Your task to perform on an android device: uninstall "Grab" Image 0: 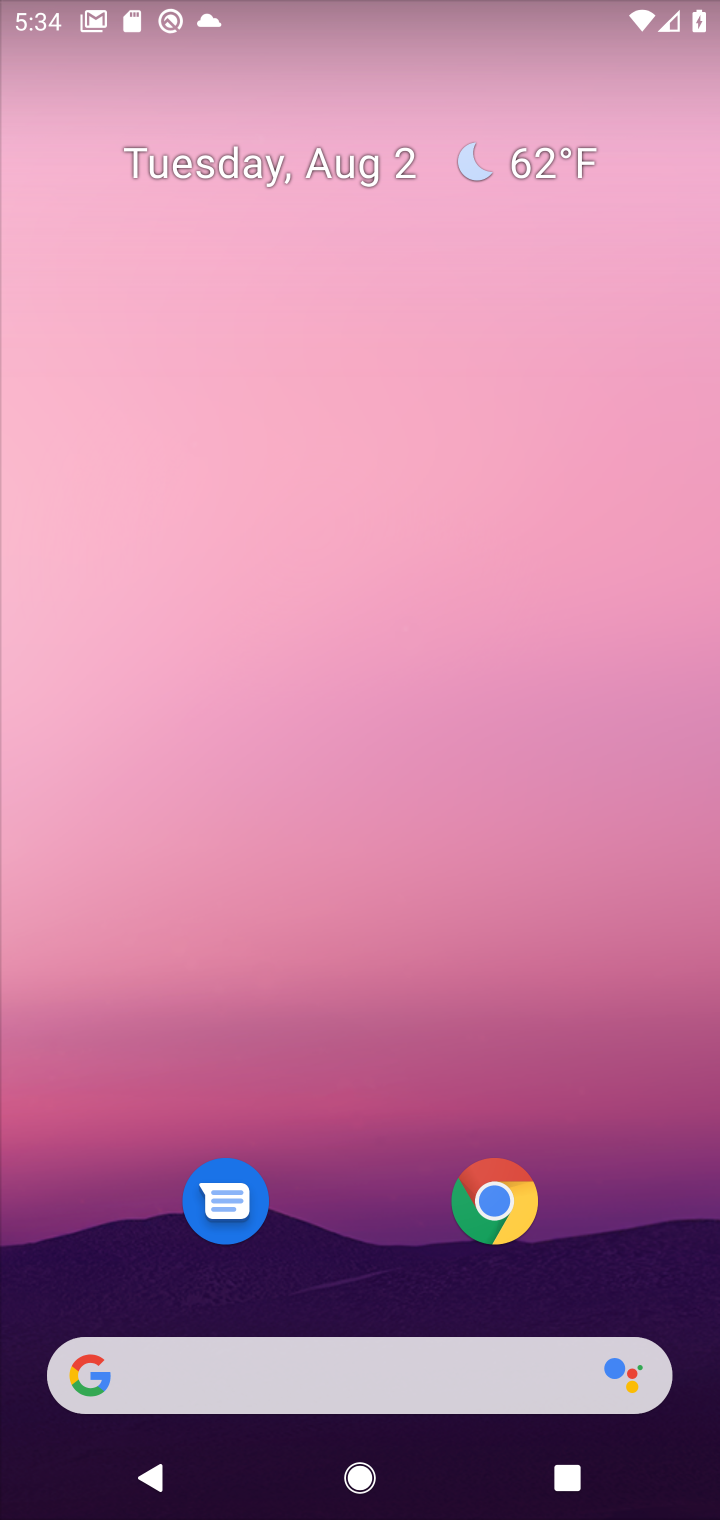
Step 0: click (413, 357)
Your task to perform on an android device: uninstall "Grab" Image 1: 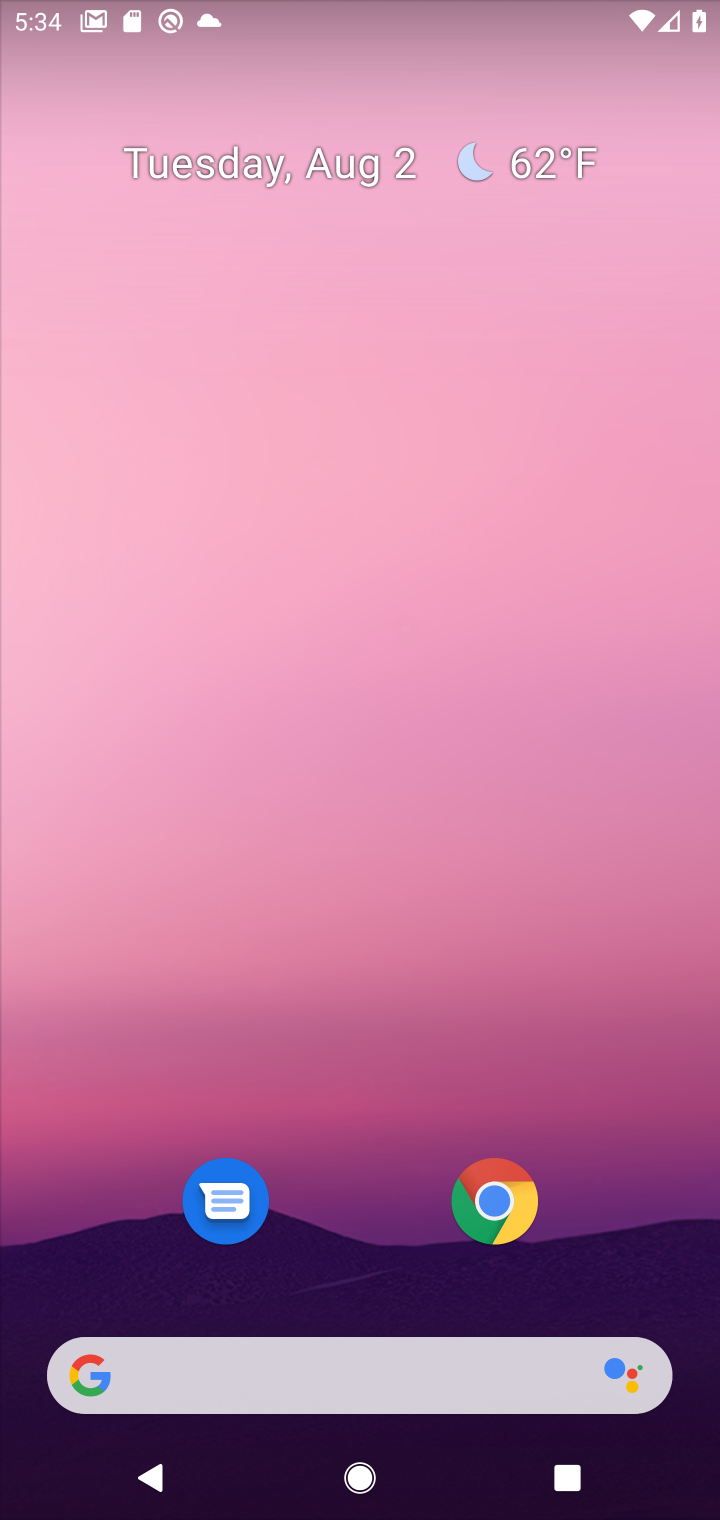
Step 1: drag from (308, 1260) to (357, 325)
Your task to perform on an android device: uninstall "Grab" Image 2: 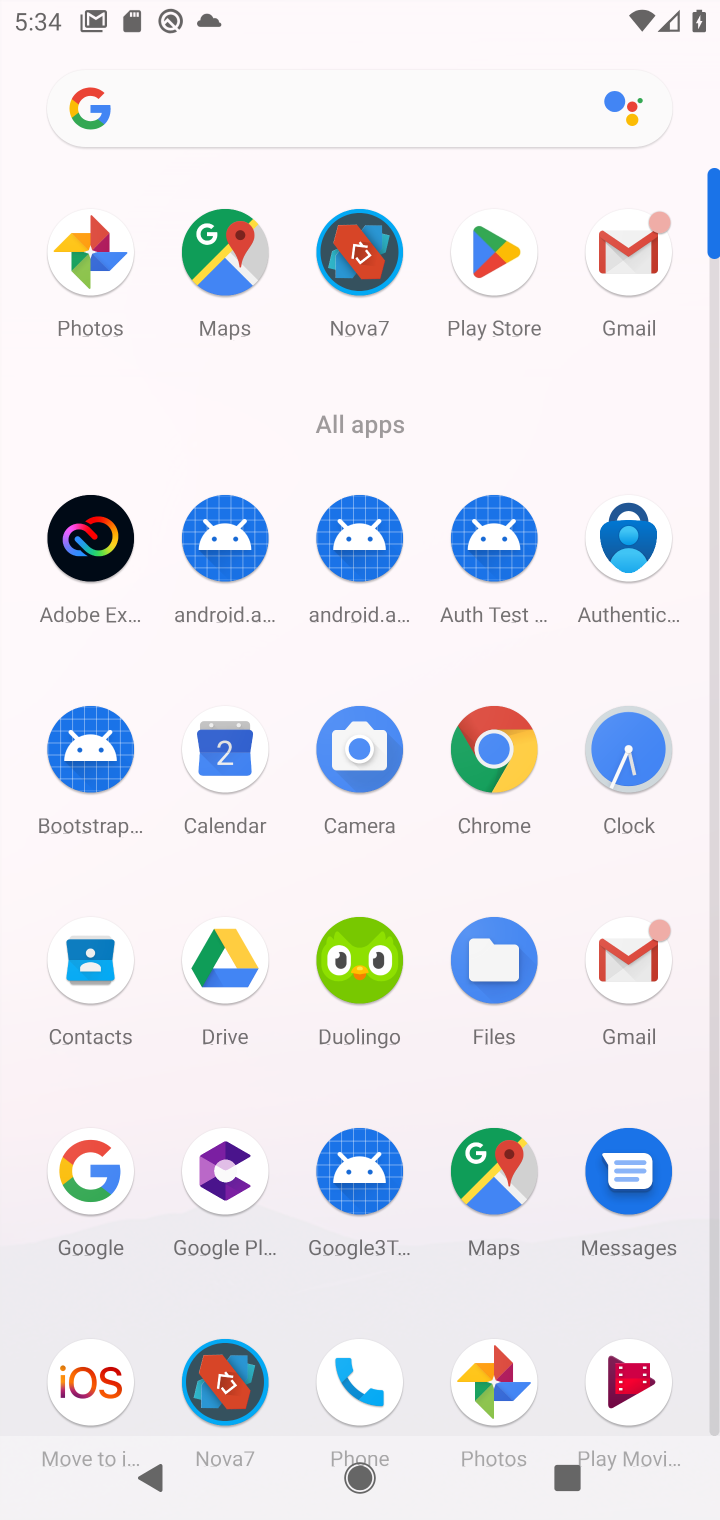
Step 2: click (476, 273)
Your task to perform on an android device: uninstall "Grab" Image 3: 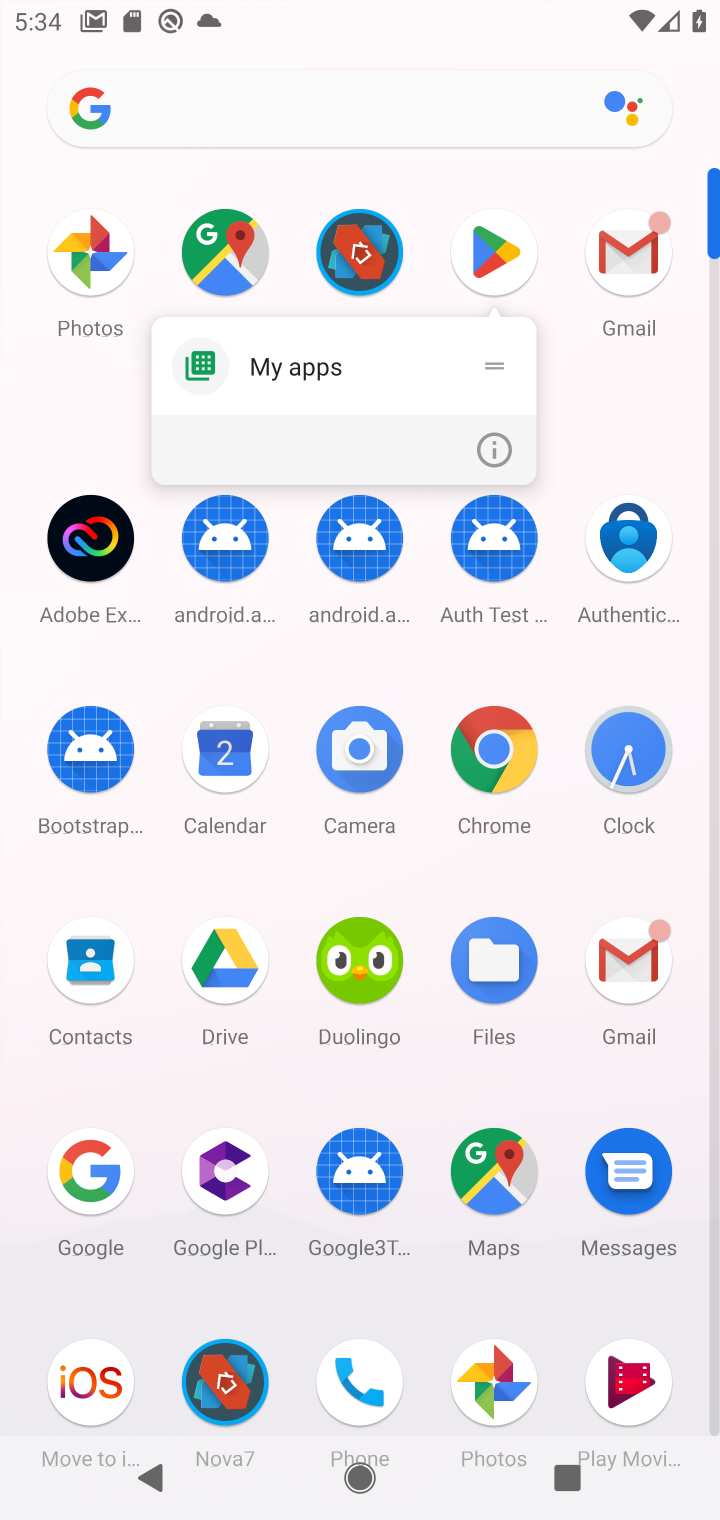
Step 3: click (487, 436)
Your task to perform on an android device: uninstall "Grab" Image 4: 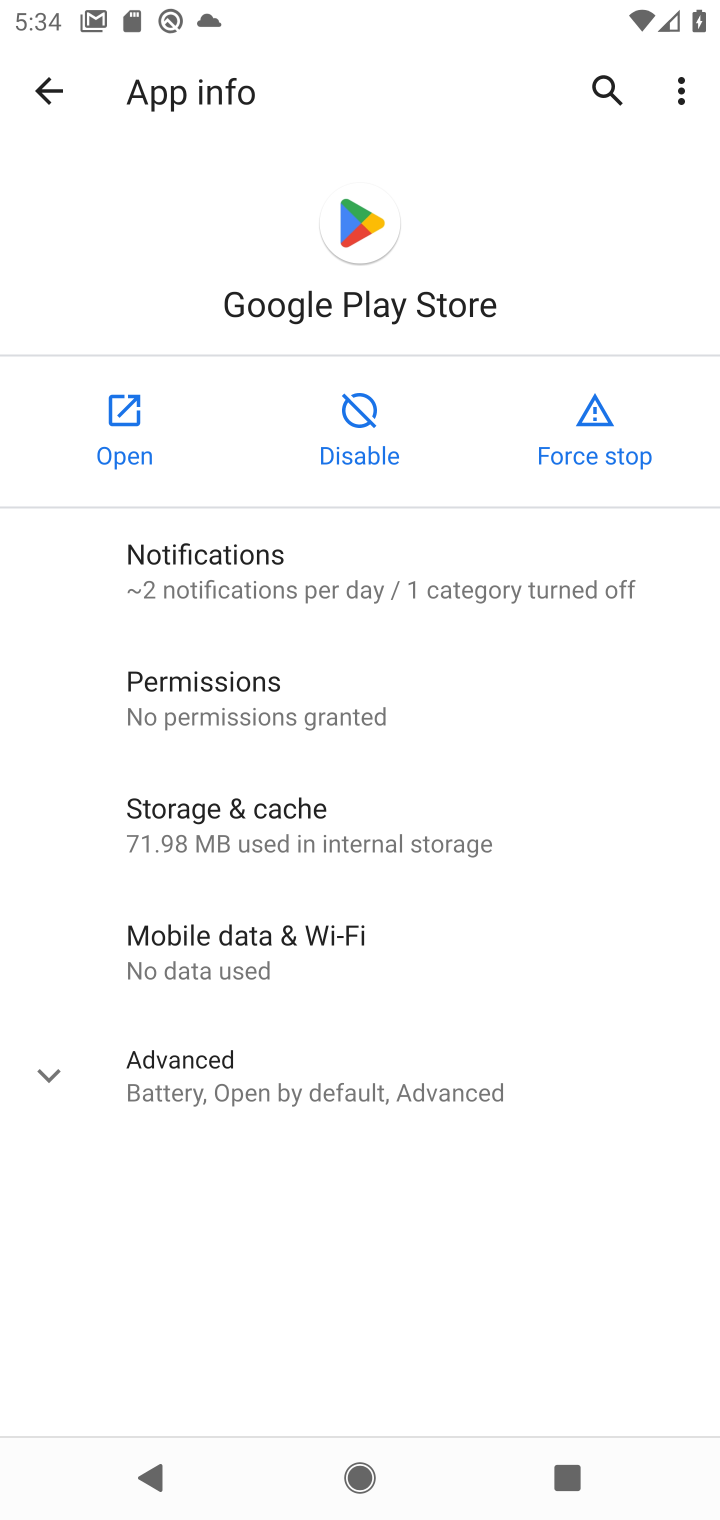
Step 4: click (123, 424)
Your task to perform on an android device: uninstall "Grab" Image 5: 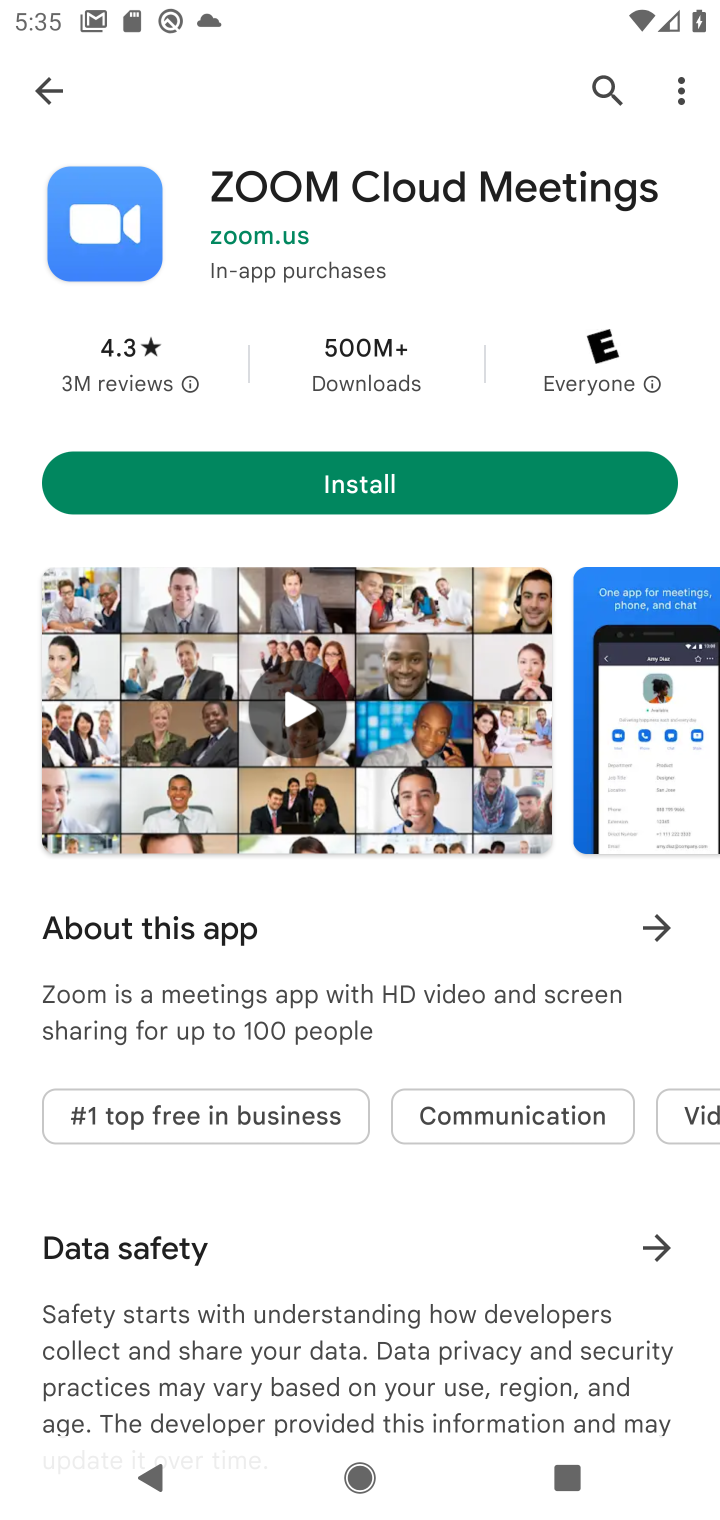
Step 5: drag from (385, 1106) to (399, 231)
Your task to perform on an android device: uninstall "Grab" Image 6: 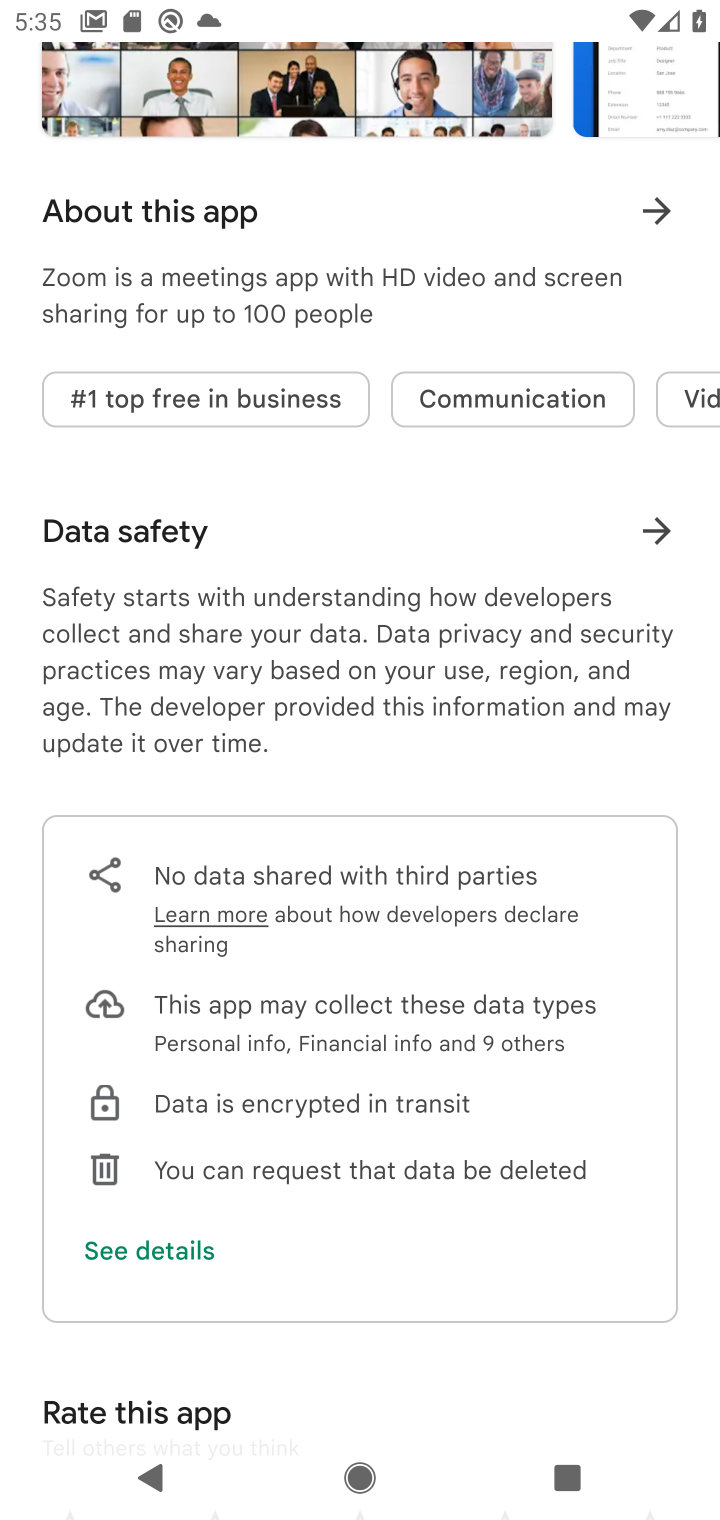
Step 6: drag from (398, 347) to (471, 1514)
Your task to perform on an android device: uninstall "Grab" Image 7: 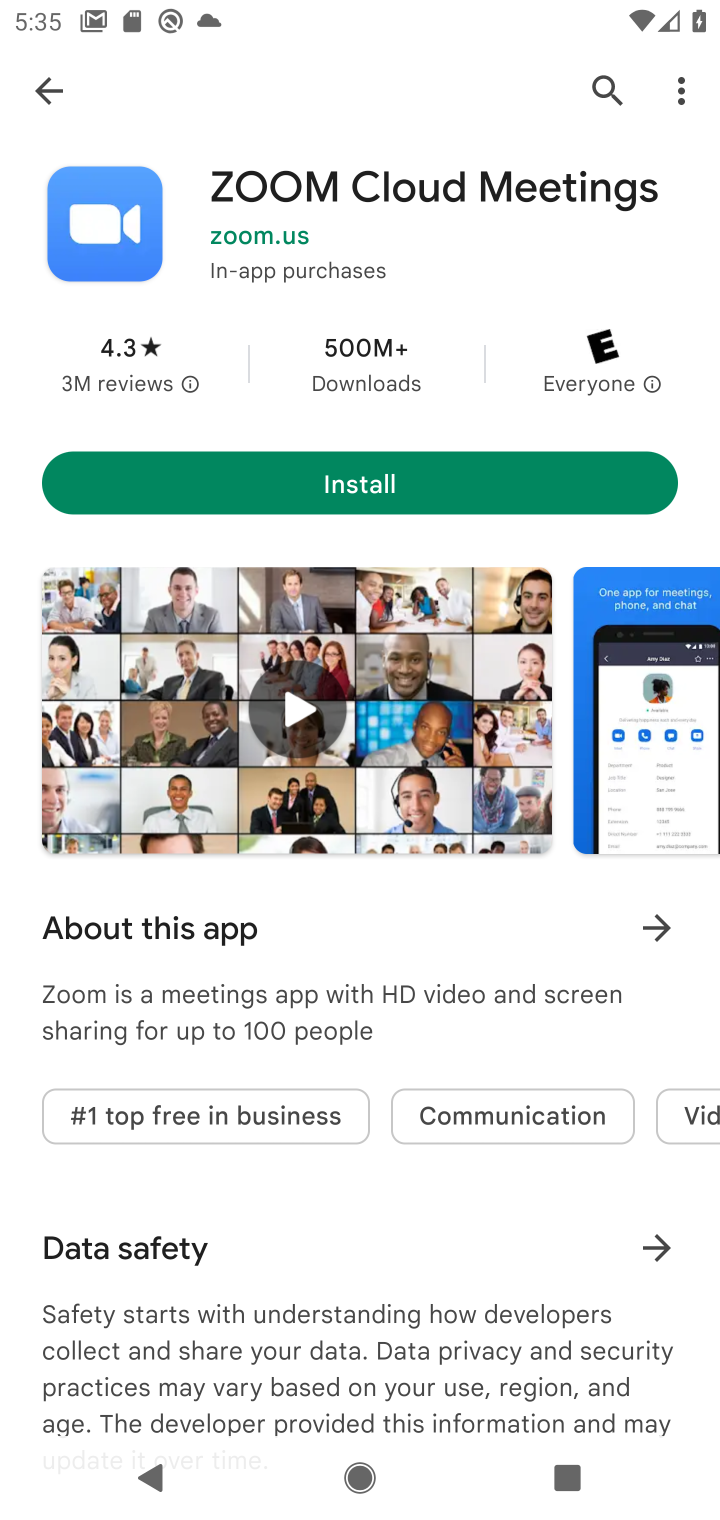
Step 7: click (607, 75)
Your task to perform on an android device: uninstall "Grab" Image 8: 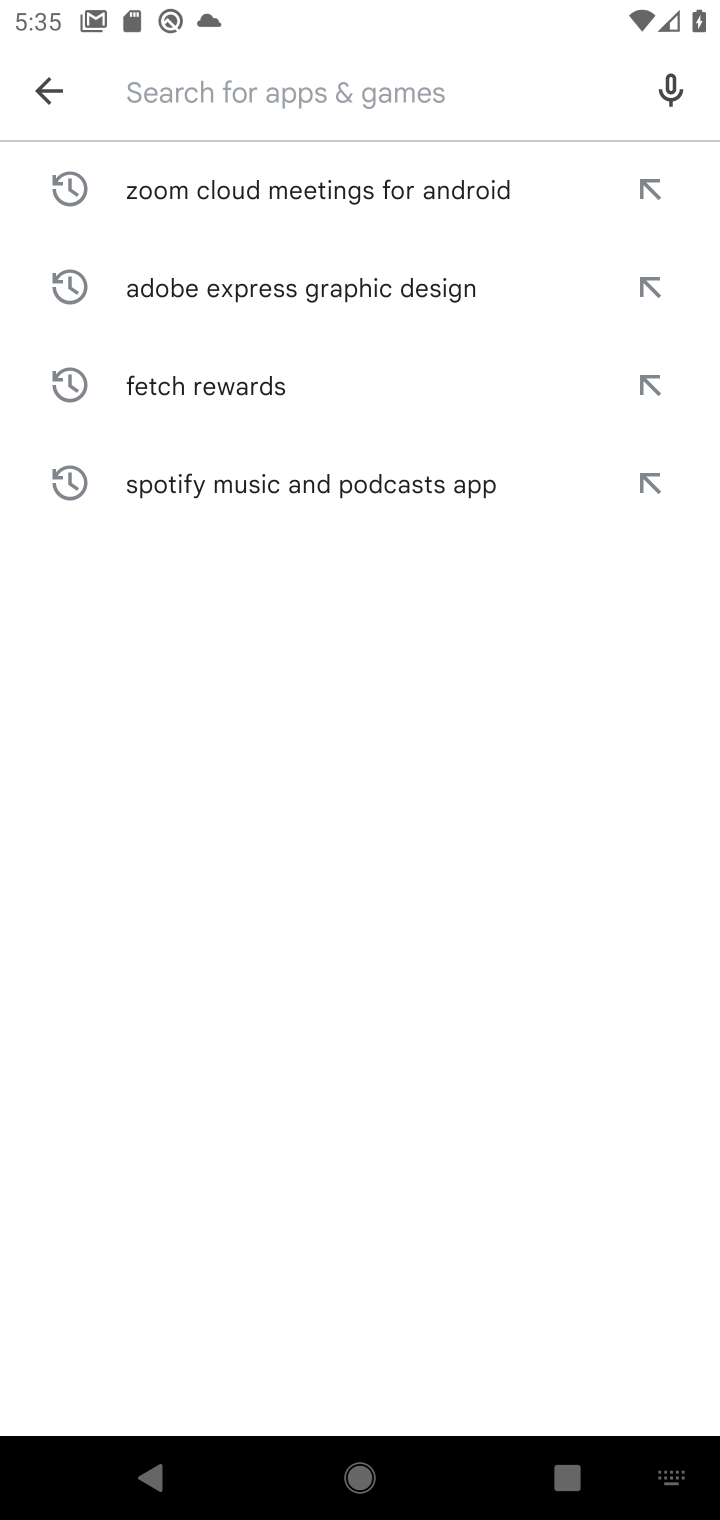
Step 8: click (340, 93)
Your task to perform on an android device: uninstall "Grab" Image 9: 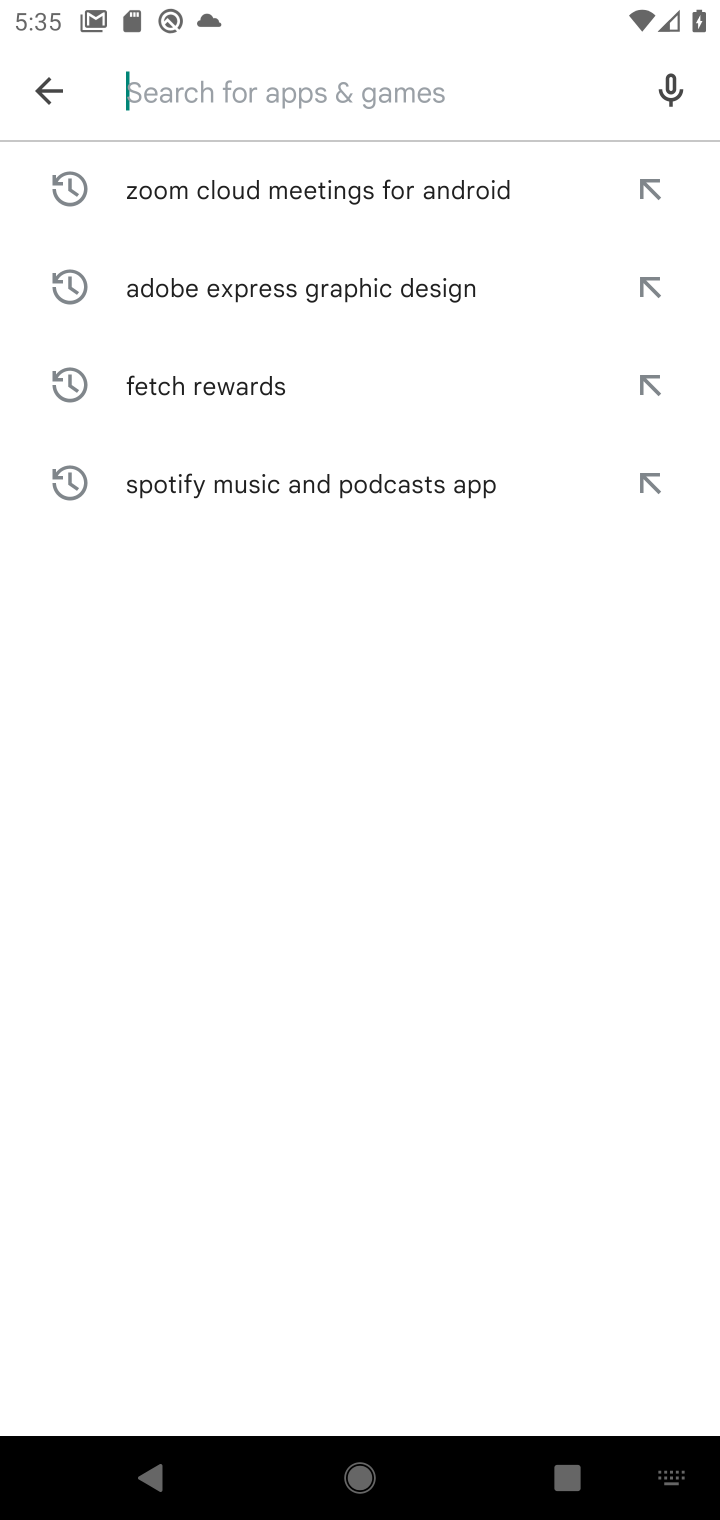
Step 9: type "Grab"
Your task to perform on an android device: uninstall "Grab" Image 10: 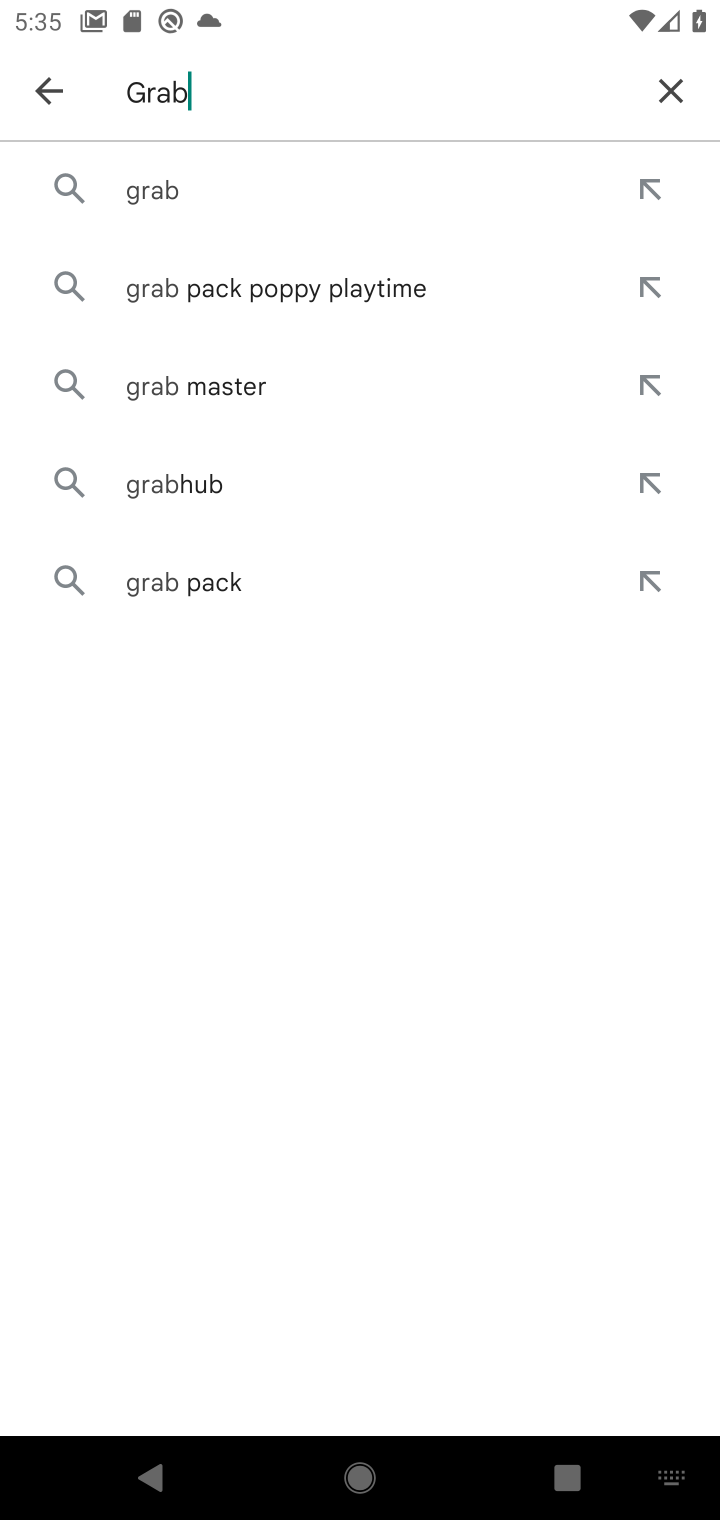
Step 10: click (202, 198)
Your task to perform on an android device: uninstall "Grab" Image 11: 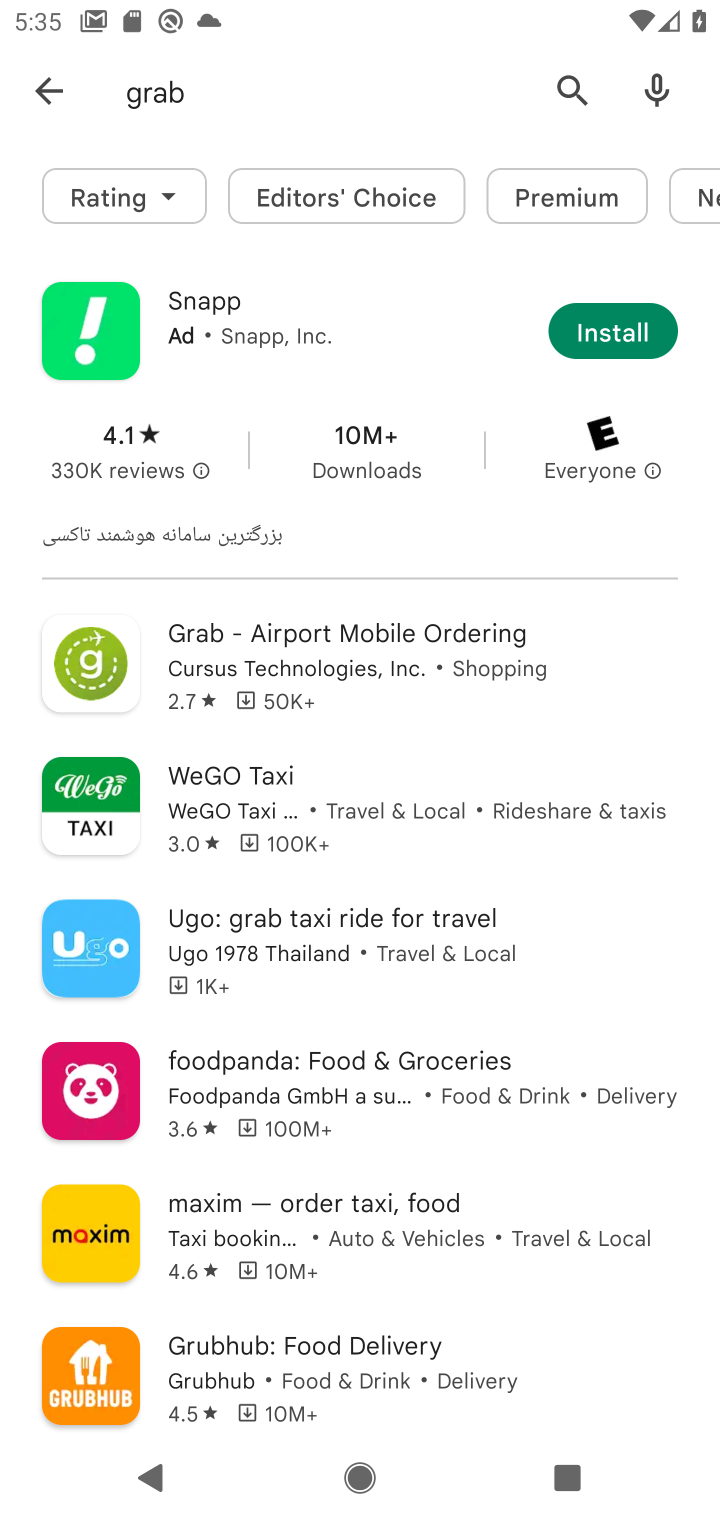
Step 11: click (208, 653)
Your task to perform on an android device: uninstall "Grab" Image 12: 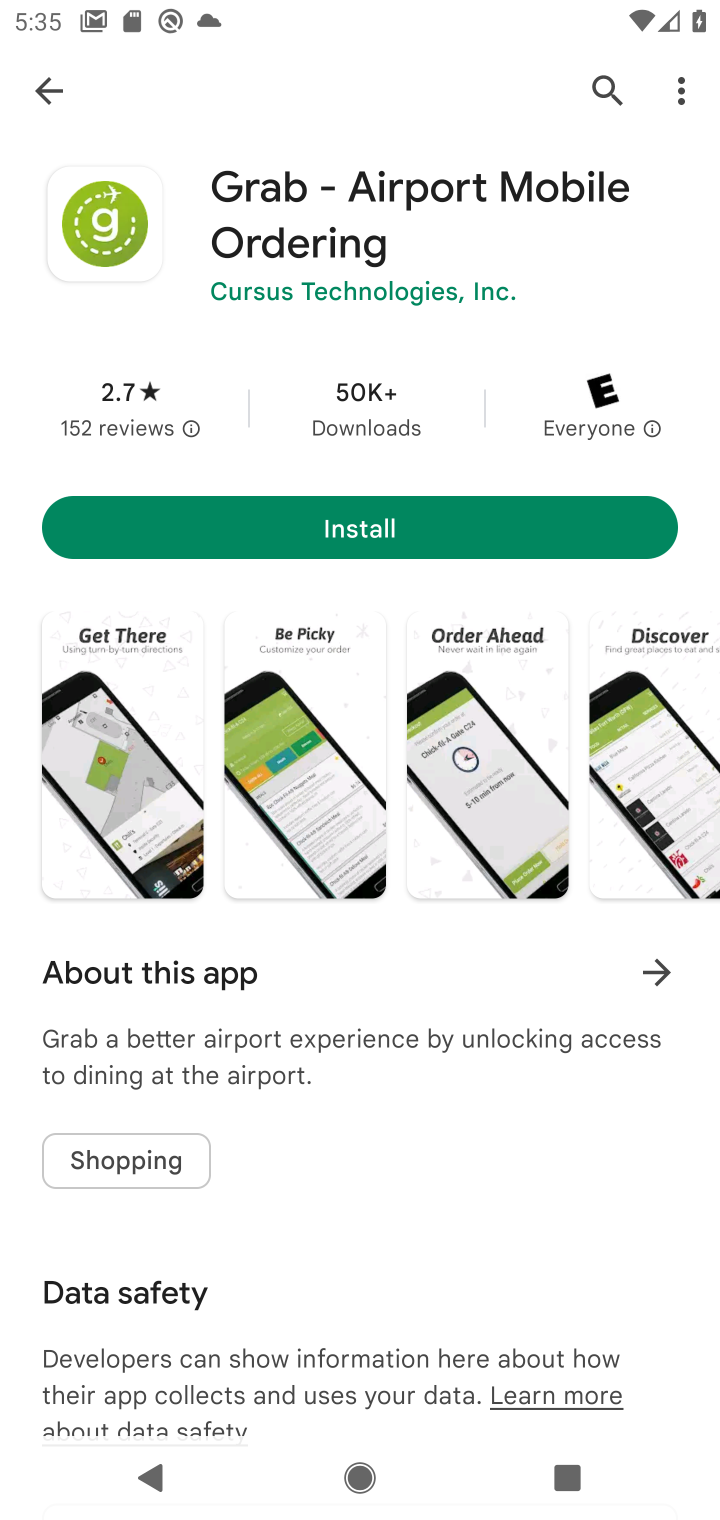
Step 12: task complete